Your task to perform on an android device: turn smart compose on in the gmail app Image 0: 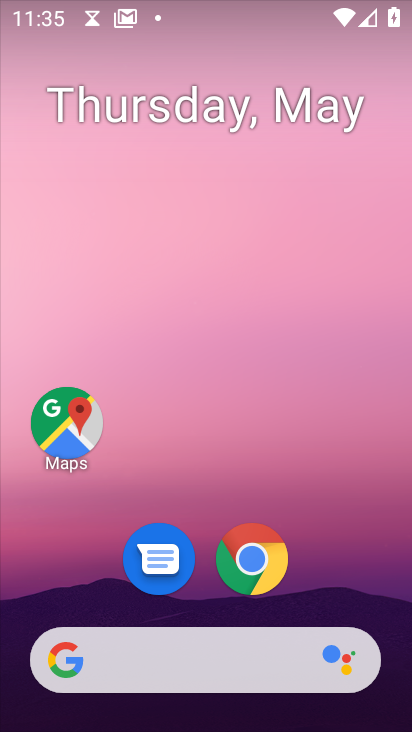
Step 0: drag from (222, 725) to (211, 148)
Your task to perform on an android device: turn smart compose on in the gmail app Image 1: 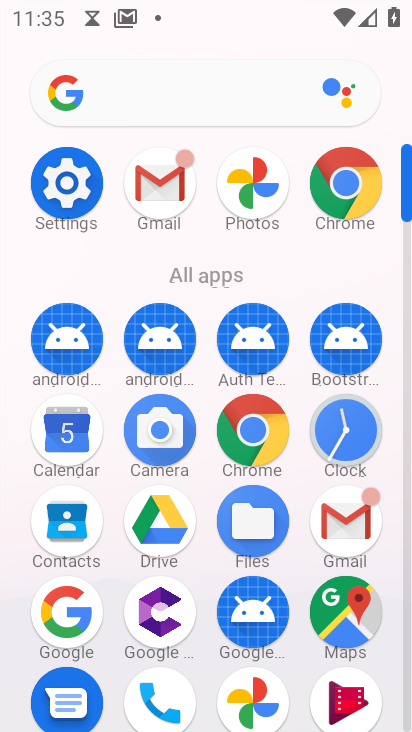
Step 1: click (351, 510)
Your task to perform on an android device: turn smart compose on in the gmail app Image 2: 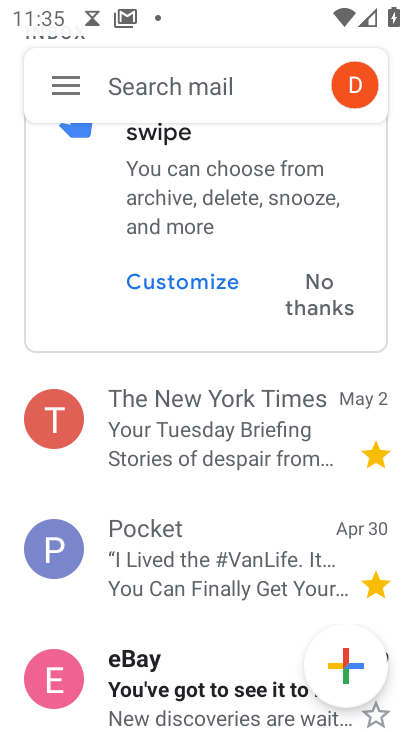
Step 2: click (62, 83)
Your task to perform on an android device: turn smart compose on in the gmail app Image 3: 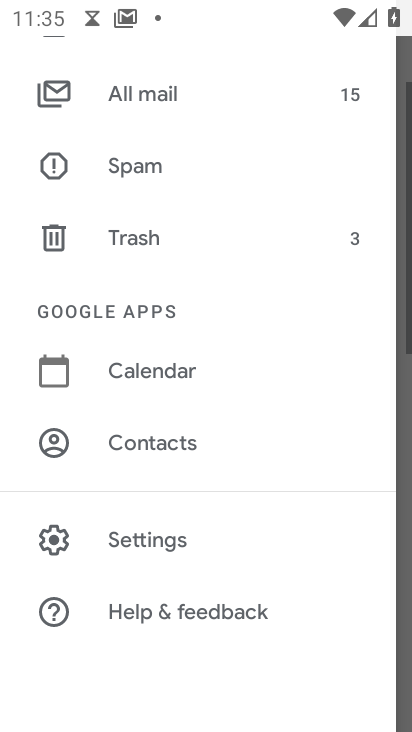
Step 3: click (171, 540)
Your task to perform on an android device: turn smart compose on in the gmail app Image 4: 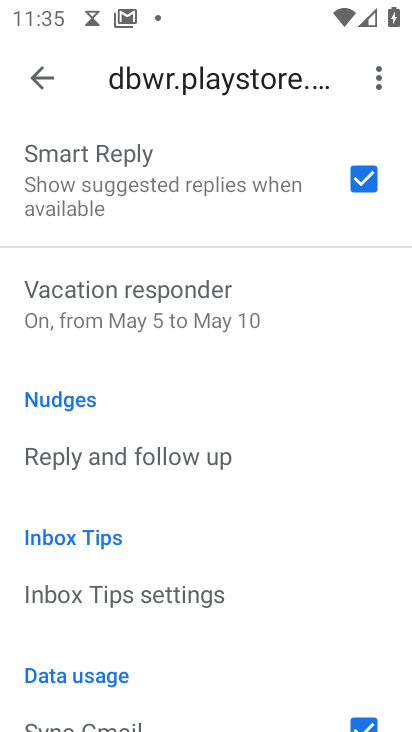
Step 4: task complete